Your task to perform on an android device: turn on airplane mode Image 0: 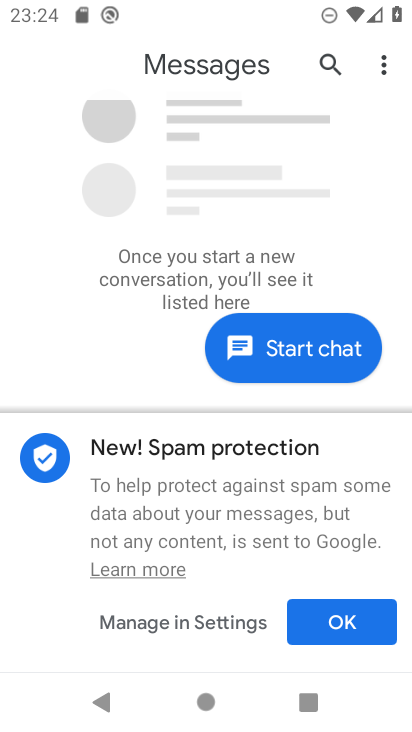
Step 0: press home button
Your task to perform on an android device: turn on airplane mode Image 1: 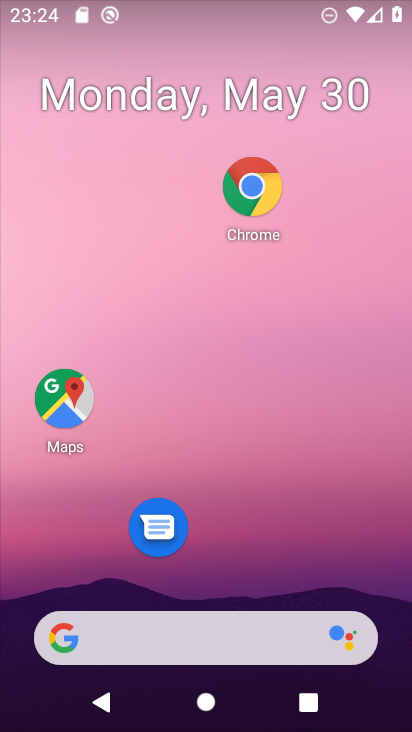
Step 1: drag from (262, 573) to (301, 256)
Your task to perform on an android device: turn on airplane mode Image 2: 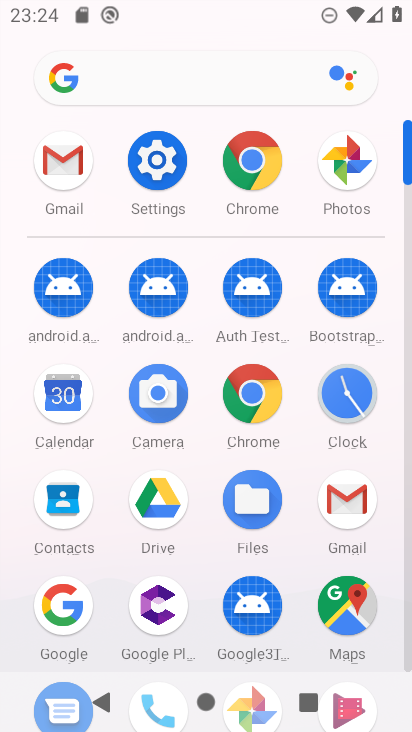
Step 2: click (147, 144)
Your task to perform on an android device: turn on airplane mode Image 3: 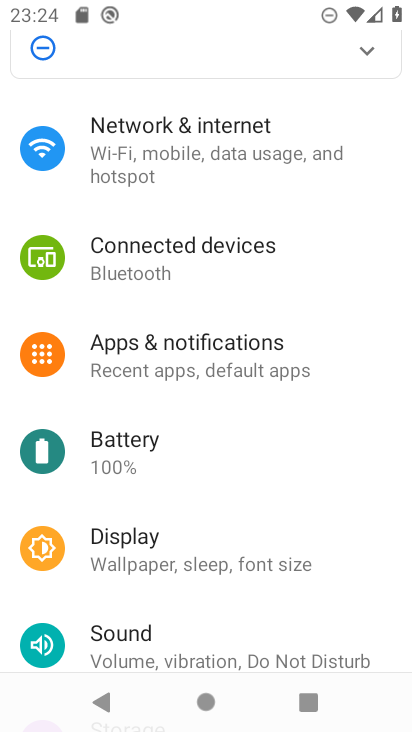
Step 3: click (192, 142)
Your task to perform on an android device: turn on airplane mode Image 4: 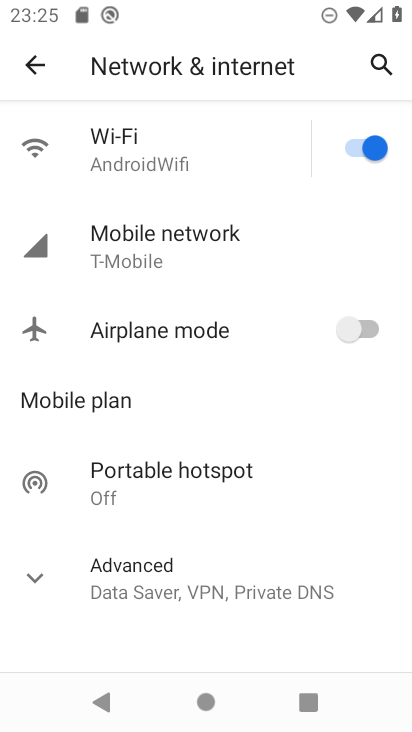
Step 4: click (366, 324)
Your task to perform on an android device: turn on airplane mode Image 5: 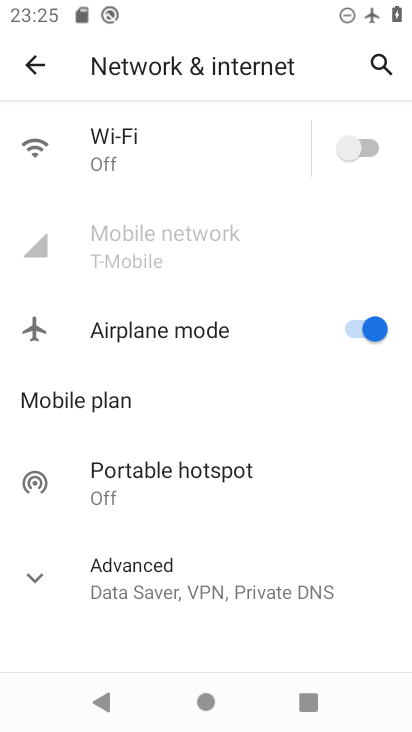
Step 5: task complete